Your task to perform on an android device: open app "Instagram" (install if not already installed) Image 0: 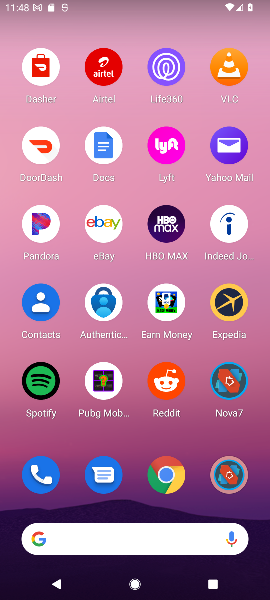
Step 0: drag from (136, 477) to (136, 29)
Your task to perform on an android device: open app "Instagram" (install if not already installed) Image 1: 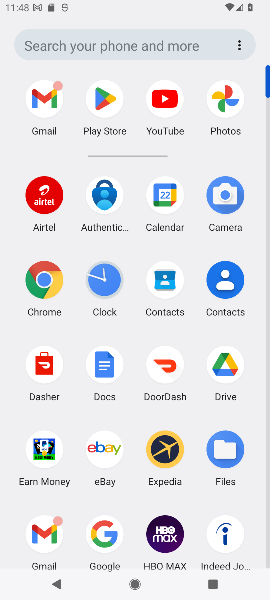
Step 1: click (108, 98)
Your task to perform on an android device: open app "Instagram" (install if not already installed) Image 2: 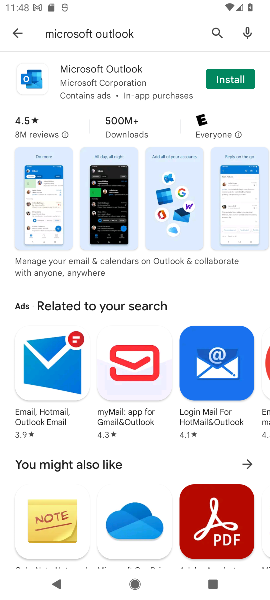
Step 2: click (16, 34)
Your task to perform on an android device: open app "Instagram" (install if not already installed) Image 3: 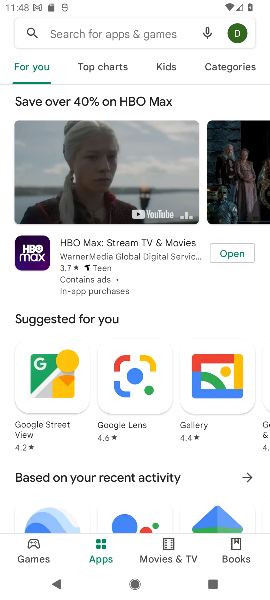
Step 3: click (67, 38)
Your task to perform on an android device: open app "Instagram" (install if not already installed) Image 4: 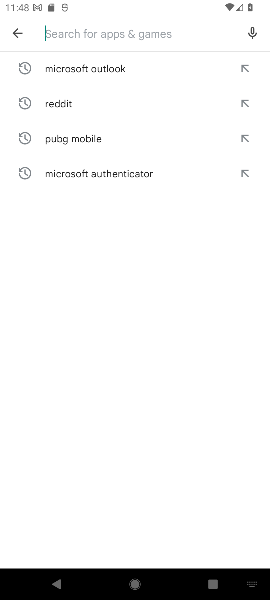
Step 4: type "Instagram"
Your task to perform on an android device: open app "Instagram" (install if not already installed) Image 5: 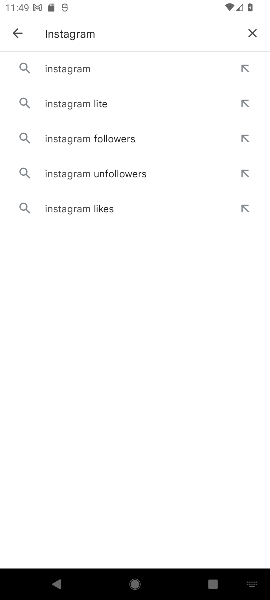
Step 5: click (73, 67)
Your task to perform on an android device: open app "Instagram" (install if not already installed) Image 6: 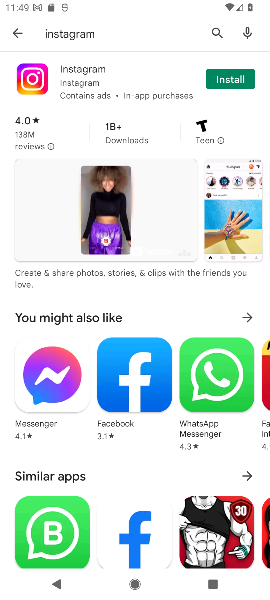
Step 6: click (235, 83)
Your task to perform on an android device: open app "Instagram" (install if not already installed) Image 7: 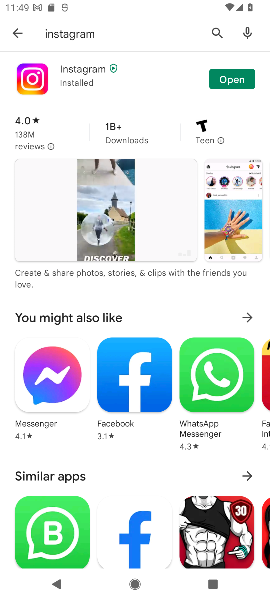
Step 7: click (240, 76)
Your task to perform on an android device: open app "Instagram" (install if not already installed) Image 8: 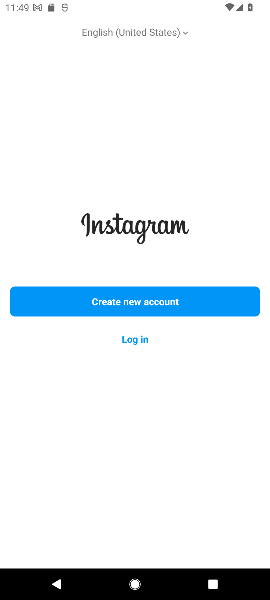
Step 8: task complete